Your task to perform on an android device: Open Maps and search for coffee Image 0: 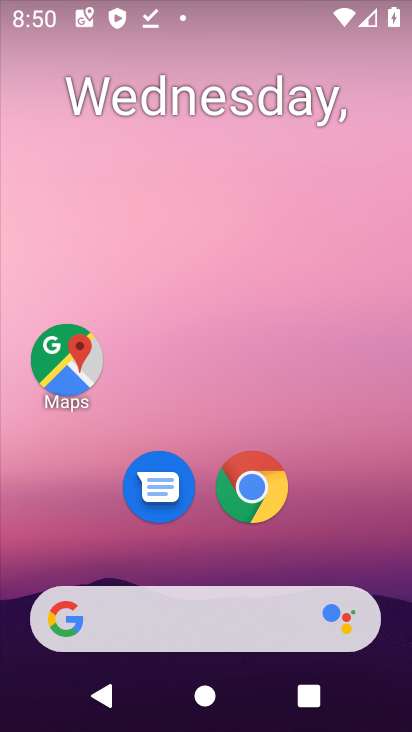
Step 0: click (118, 7)
Your task to perform on an android device: Open Maps and search for coffee Image 1: 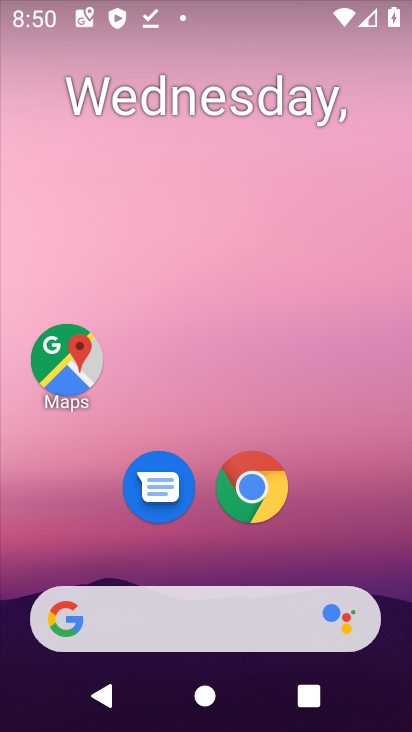
Step 1: drag from (348, 604) to (215, 33)
Your task to perform on an android device: Open Maps and search for coffee Image 2: 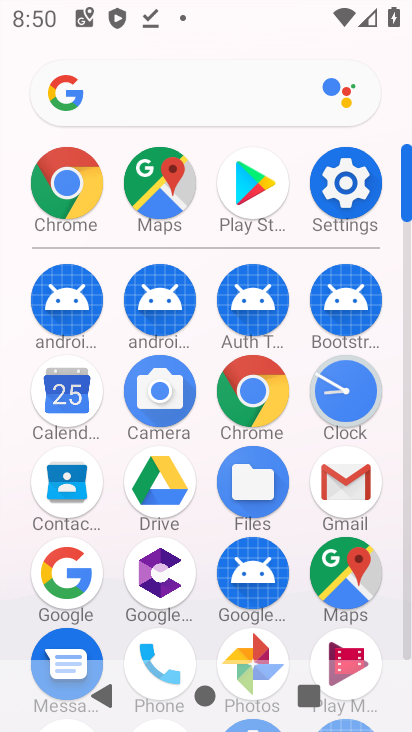
Step 2: click (351, 577)
Your task to perform on an android device: Open Maps and search for coffee Image 3: 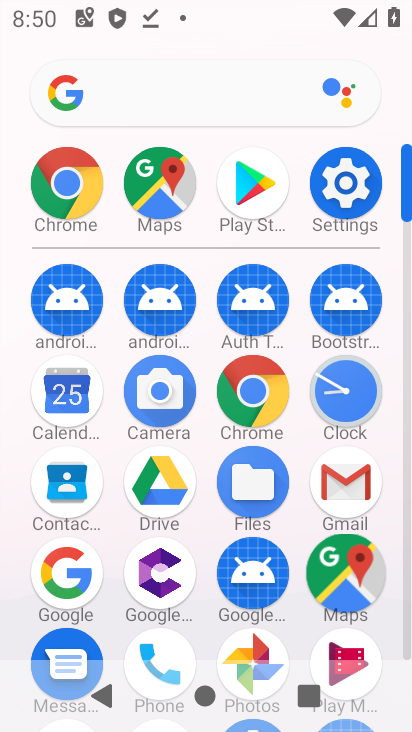
Step 3: click (351, 577)
Your task to perform on an android device: Open Maps and search for coffee Image 4: 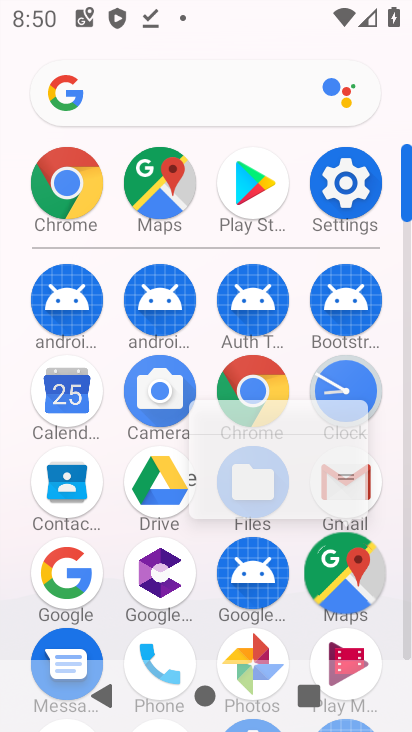
Step 4: click (331, 577)
Your task to perform on an android device: Open Maps and search for coffee Image 5: 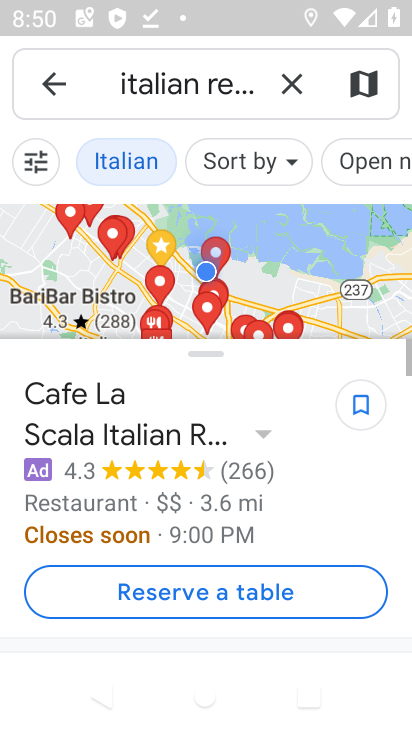
Step 5: click (297, 86)
Your task to perform on an android device: Open Maps and search for coffee Image 6: 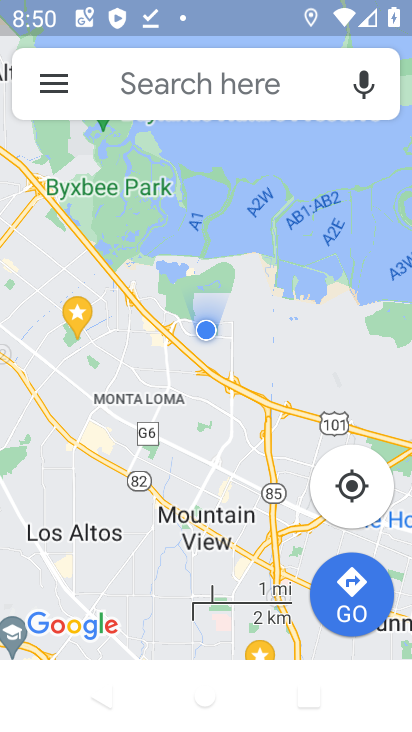
Step 6: click (171, 85)
Your task to perform on an android device: Open Maps and search for coffee Image 7: 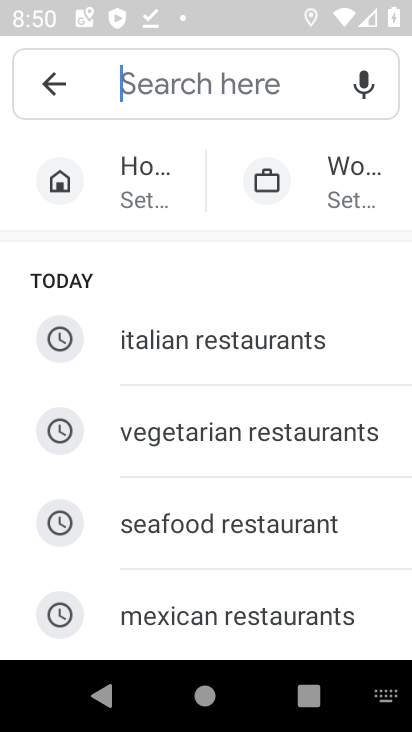
Step 7: drag from (233, 500) to (213, 266)
Your task to perform on an android device: Open Maps and search for coffee Image 8: 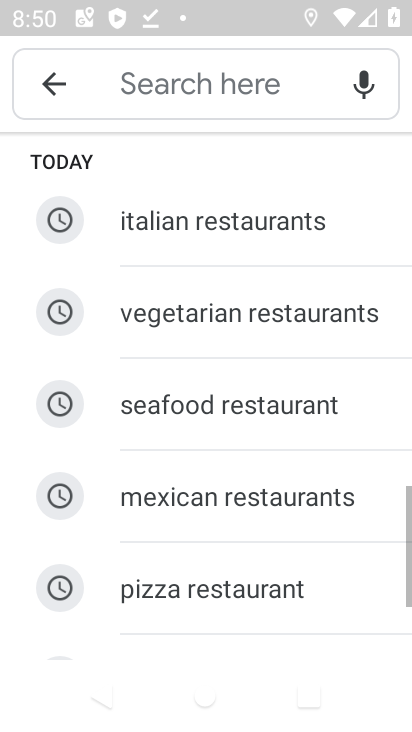
Step 8: drag from (223, 477) to (189, 196)
Your task to perform on an android device: Open Maps and search for coffee Image 9: 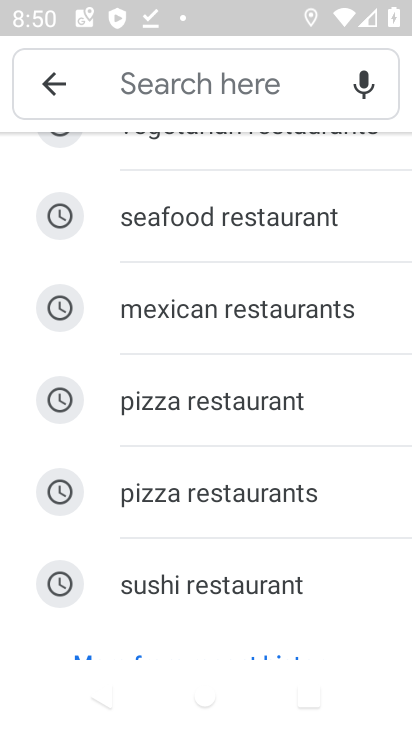
Step 9: click (119, 76)
Your task to perform on an android device: Open Maps and search for coffee Image 10: 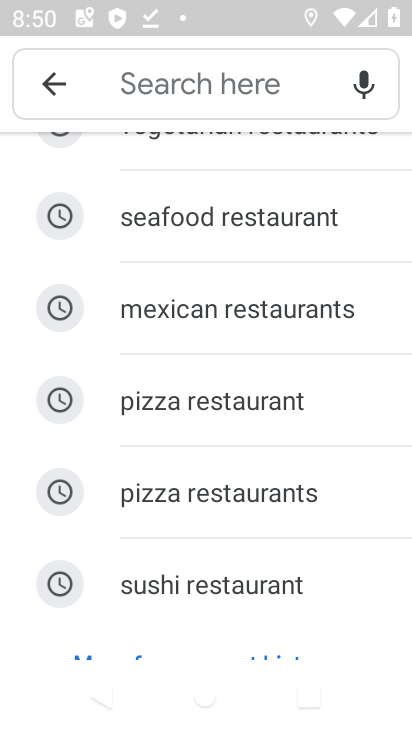
Step 10: click (129, 86)
Your task to perform on an android device: Open Maps and search for coffee Image 11: 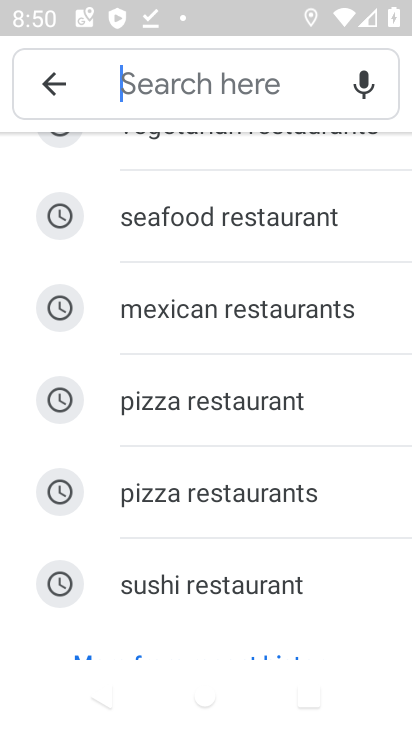
Step 11: drag from (163, 326) to (196, 583)
Your task to perform on an android device: Open Maps and search for coffee Image 12: 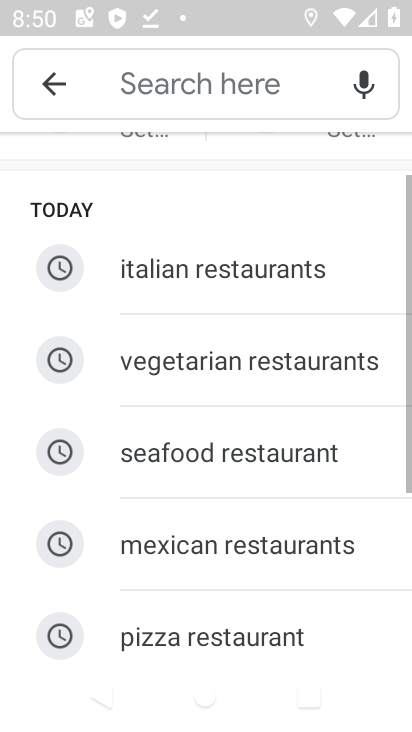
Step 12: drag from (200, 495) to (267, 708)
Your task to perform on an android device: Open Maps and search for coffee Image 13: 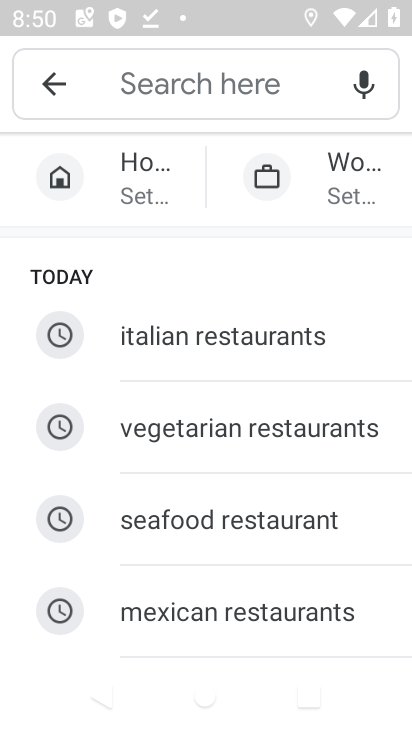
Step 13: click (133, 86)
Your task to perform on an android device: Open Maps and search for coffee Image 14: 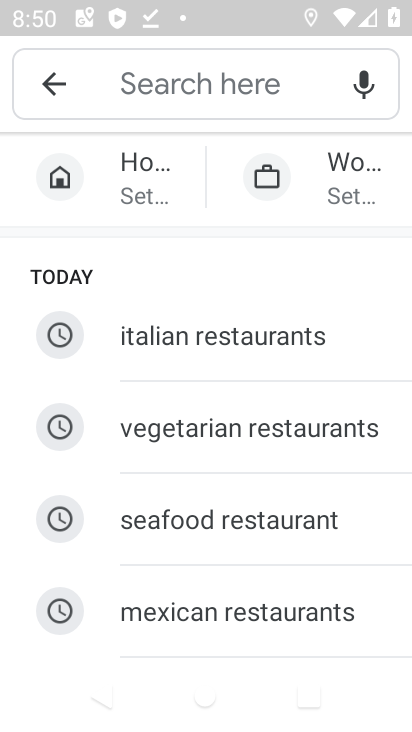
Step 14: click (133, 86)
Your task to perform on an android device: Open Maps and search for coffee Image 15: 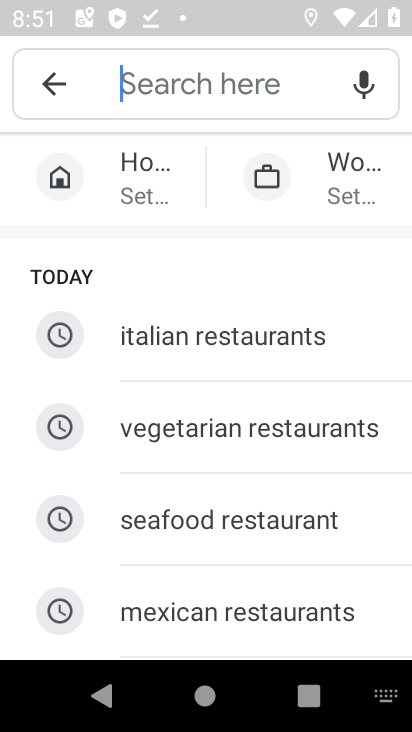
Step 15: type "coffee"
Your task to perform on an android device: Open Maps and search for coffee Image 16: 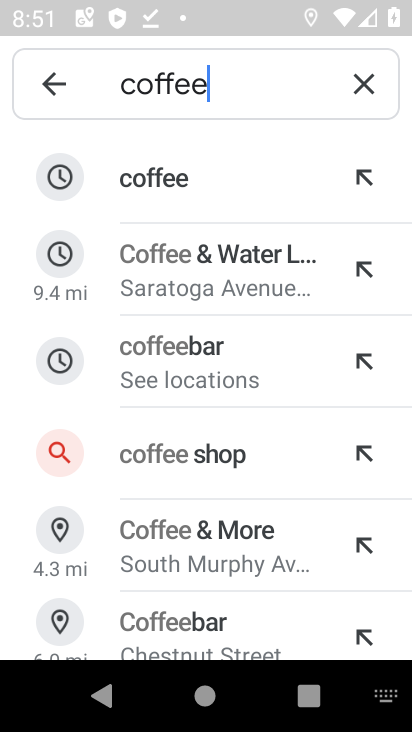
Step 16: click (169, 173)
Your task to perform on an android device: Open Maps and search for coffee Image 17: 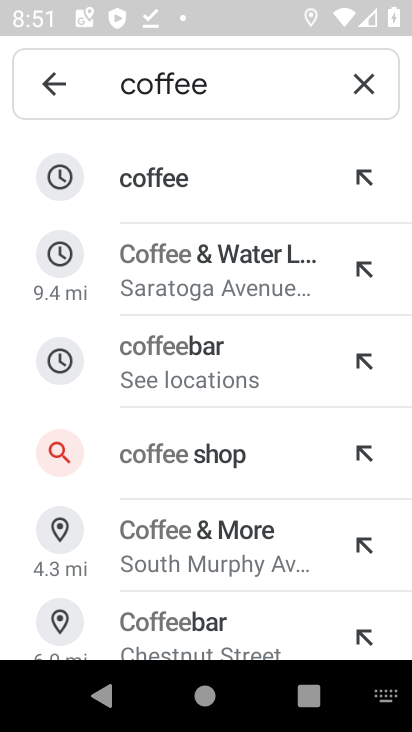
Step 17: click (173, 177)
Your task to perform on an android device: Open Maps and search for coffee Image 18: 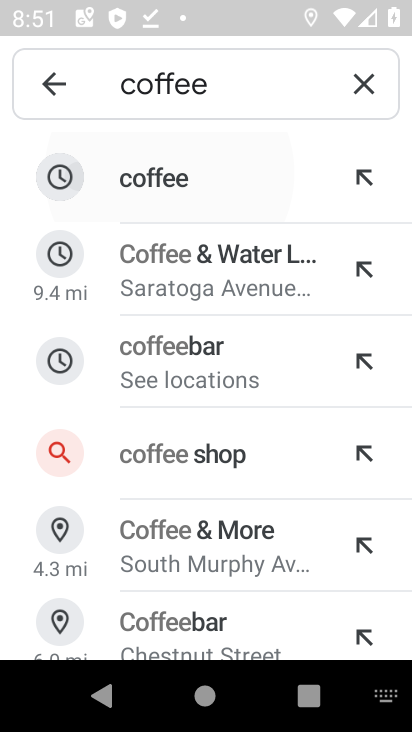
Step 18: click (176, 179)
Your task to perform on an android device: Open Maps and search for coffee Image 19: 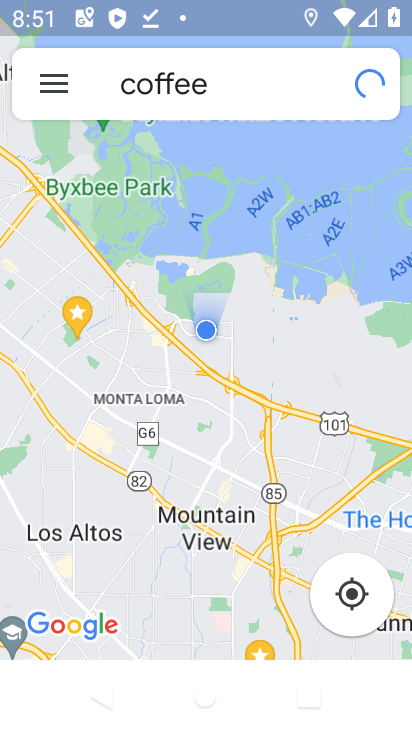
Step 19: click (177, 180)
Your task to perform on an android device: Open Maps and search for coffee Image 20: 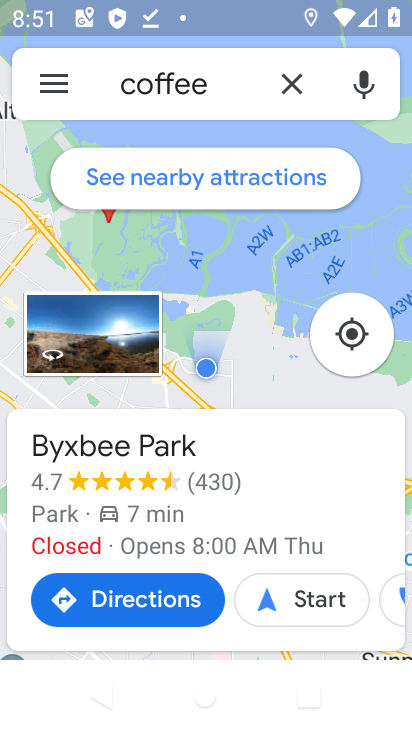
Step 20: task complete